Your task to perform on an android device: Search for Mexican restaurants on Maps Image 0: 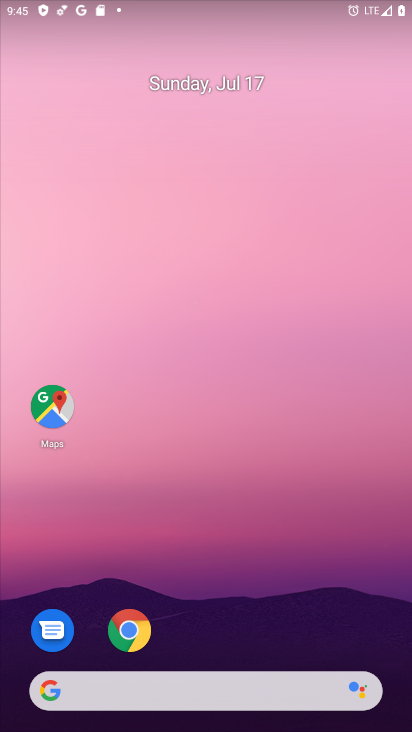
Step 0: press home button
Your task to perform on an android device: Search for Mexican restaurants on Maps Image 1: 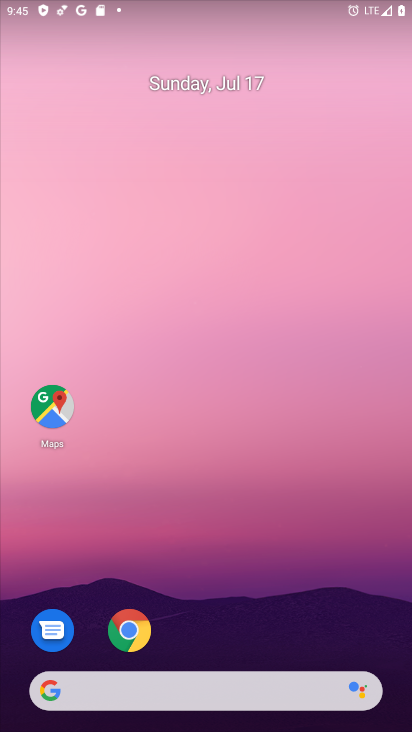
Step 1: click (49, 401)
Your task to perform on an android device: Search for Mexican restaurants on Maps Image 2: 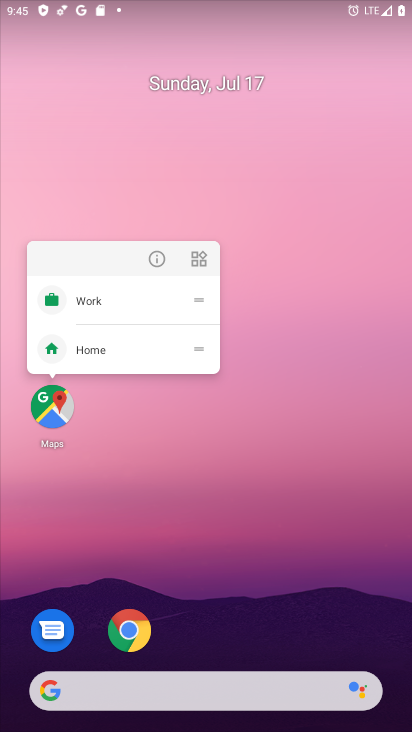
Step 2: click (49, 401)
Your task to perform on an android device: Search for Mexican restaurants on Maps Image 3: 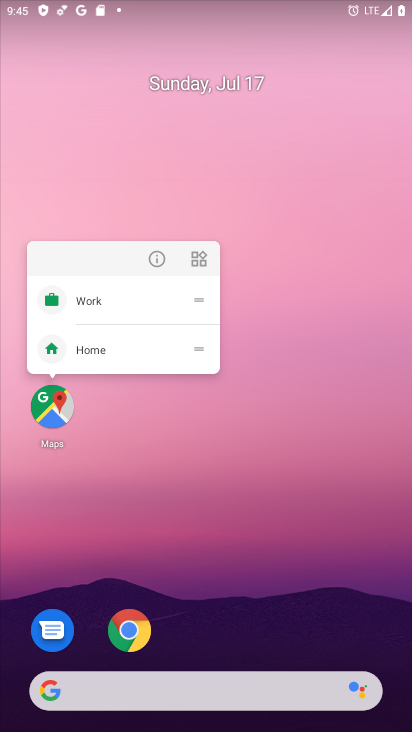
Step 3: click (49, 401)
Your task to perform on an android device: Search for Mexican restaurants on Maps Image 4: 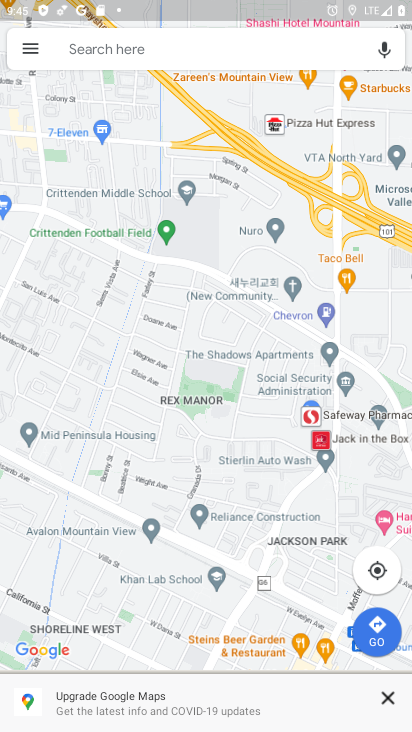
Step 4: click (105, 41)
Your task to perform on an android device: Search for Mexican restaurants on Maps Image 5: 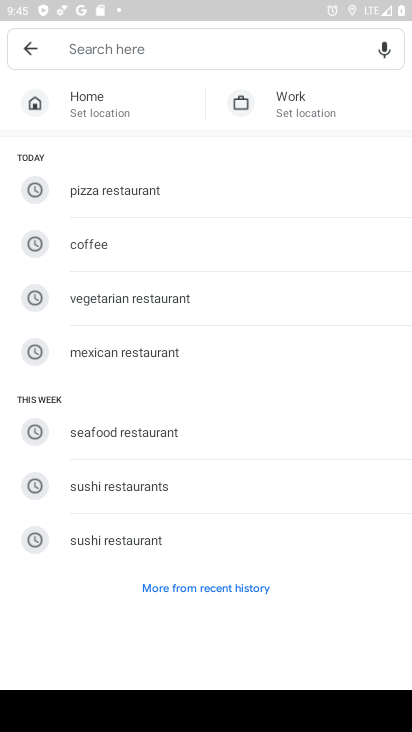
Step 5: click (125, 351)
Your task to perform on an android device: Search for Mexican restaurants on Maps Image 6: 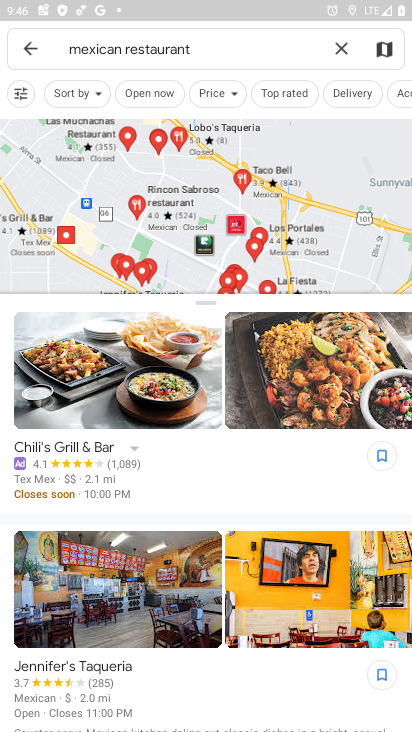
Step 6: task complete